Your task to perform on an android device: change notification settings in the gmail app Image 0: 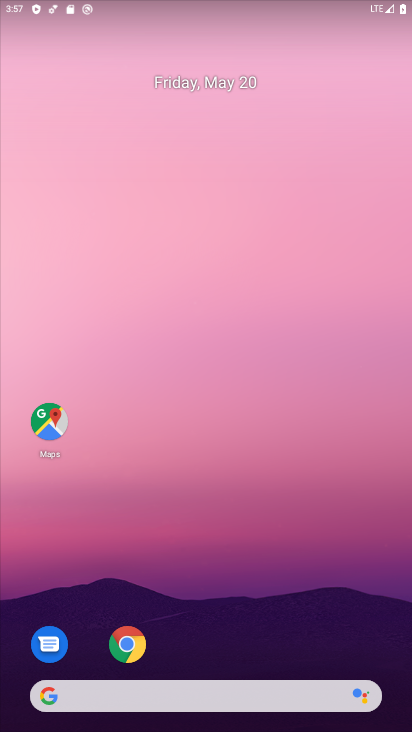
Step 0: press home button
Your task to perform on an android device: change notification settings in the gmail app Image 1: 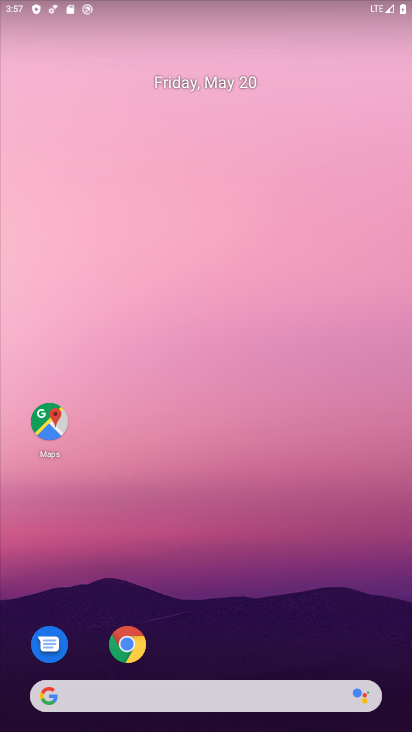
Step 1: drag from (182, 711) to (222, 326)
Your task to perform on an android device: change notification settings in the gmail app Image 2: 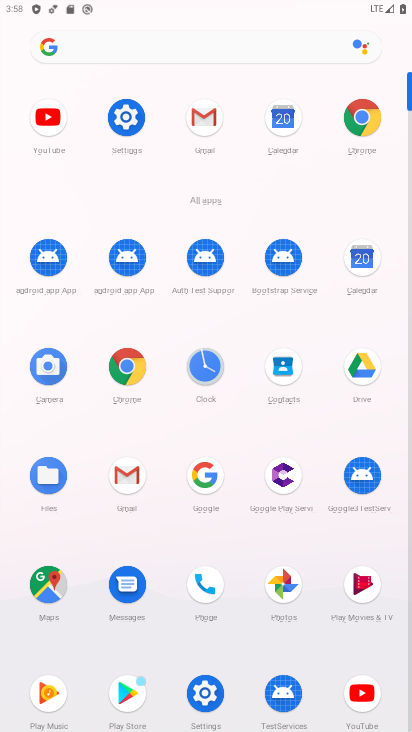
Step 2: click (119, 463)
Your task to perform on an android device: change notification settings in the gmail app Image 3: 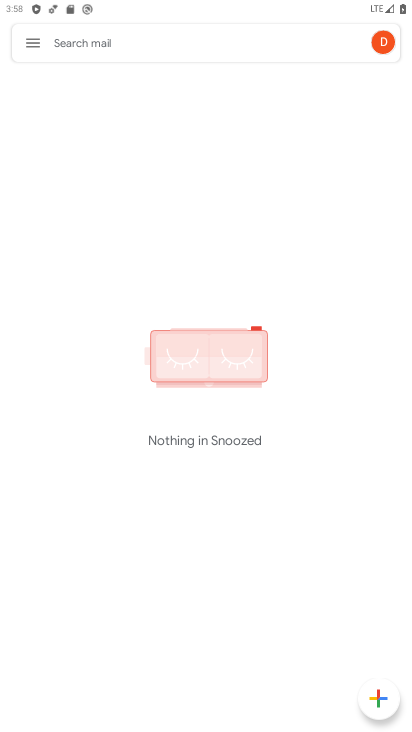
Step 3: click (26, 45)
Your task to perform on an android device: change notification settings in the gmail app Image 4: 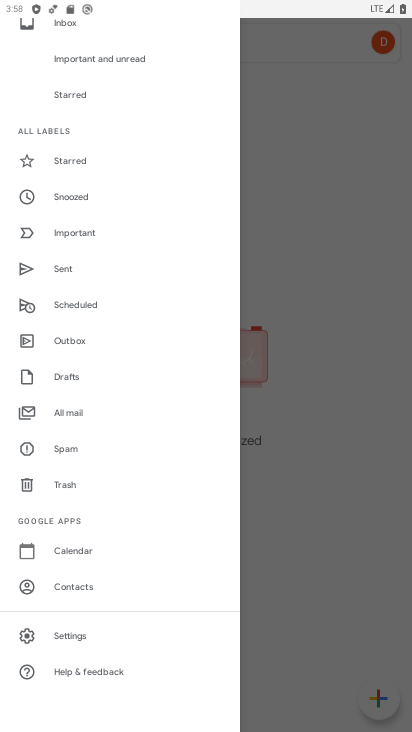
Step 4: click (94, 629)
Your task to perform on an android device: change notification settings in the gmail app Image 5: 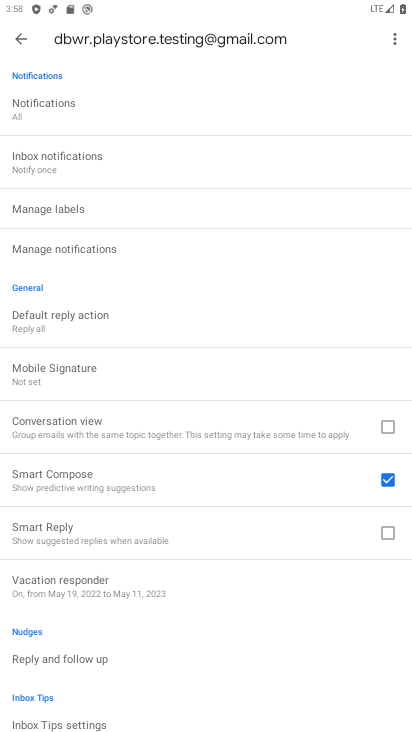
Step 5: click (25, 110)
Your task to perform on an android device: change notification settings in the gmail app Image 6: 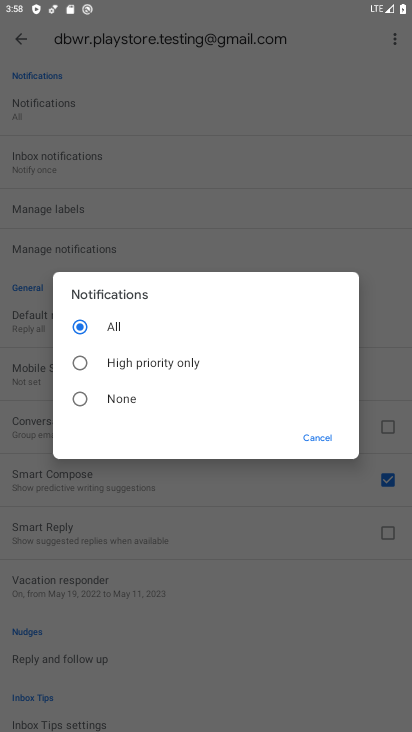
Step 6: click (173, 361)
Your task to perform on an android device: change notification settings in the gmail app Image 7: 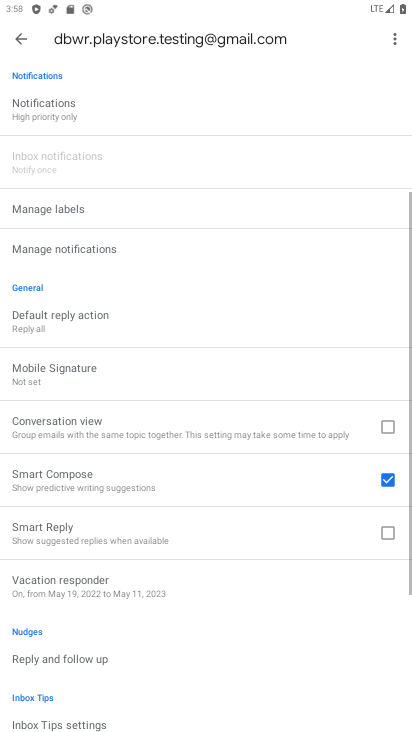
Step 7: task complete